Your task to perform on an android device: open the mobile data screen to see how much data has been used Image 0: 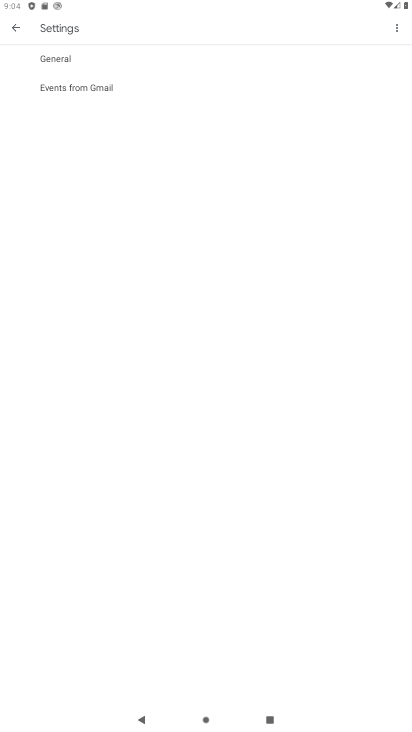
Step 0: press home button
Your task to perform on an android device: open the mobile data screen to see how much data has been used Image 1: 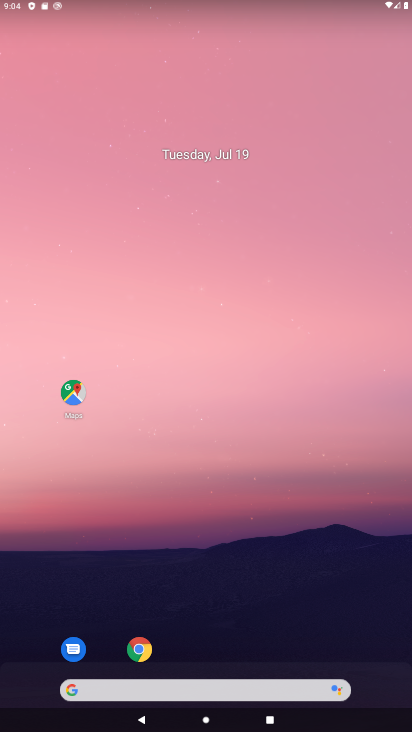
Step 1: drag from (264, 671) to (181, 91)
Your task to perform on an android device: open the mobile data screen to see how much data has been used Image 2: 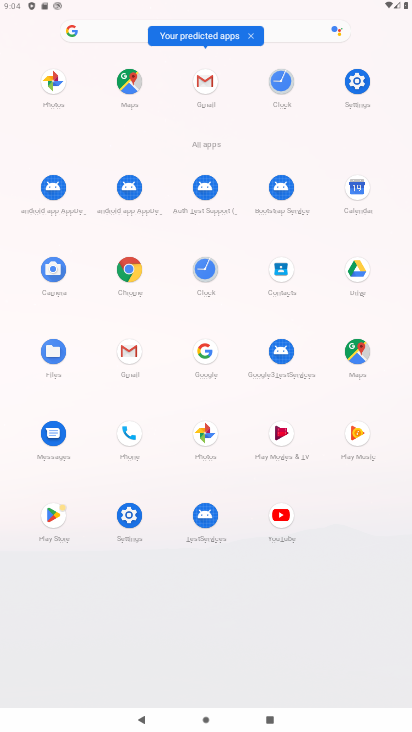
Step 2: click (367, 78)
Your task to perform on an android device: open the mobile data screen to see how much data has been used Image 3: 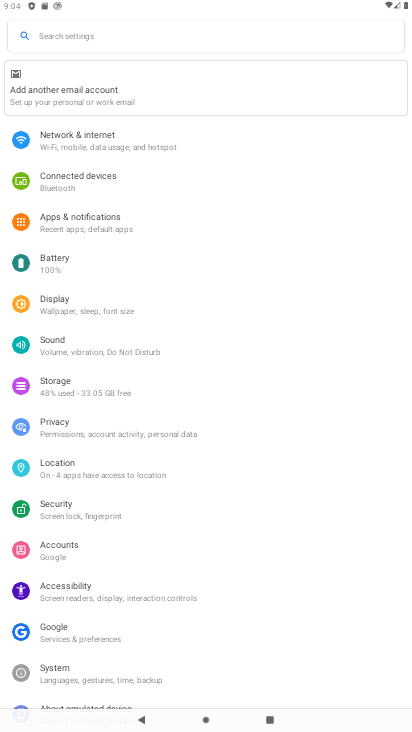
Step 3: press home button
Your task to perform on an android device: open the mobile data screen to see how much data has been used Image 4: 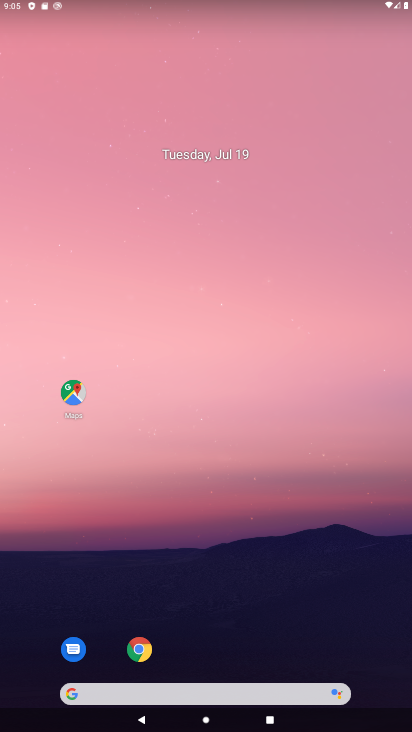
Step 4: drag from (128, 677) to (213, 78)
Your task to perform on an android device: open the mobile data screen to see how much data has been used Image 5: 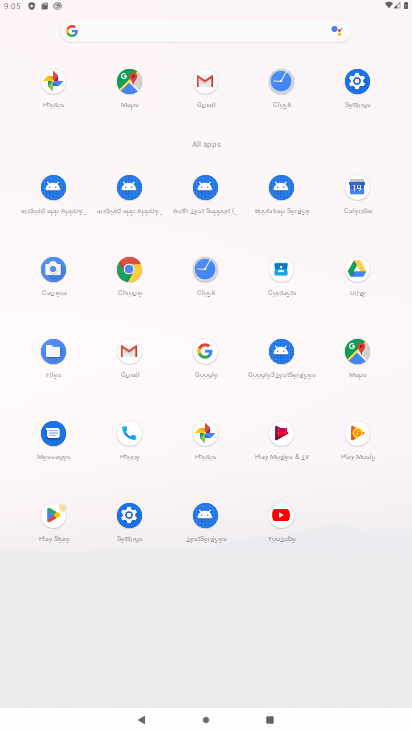
Step 5: click (365, 79)
Your task to perform on an android device: open the mobile data screen to see how much data has been used Image 6: 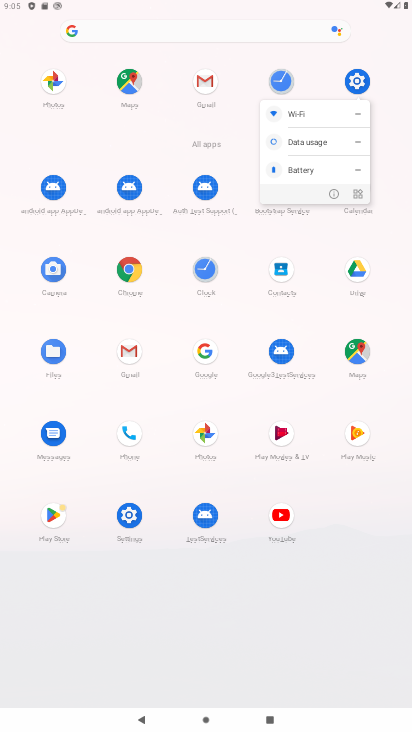
Step 6: click (369, 90)
Your task to perform on an android device: open the mobile data screen to see how much data has been used Image 7: 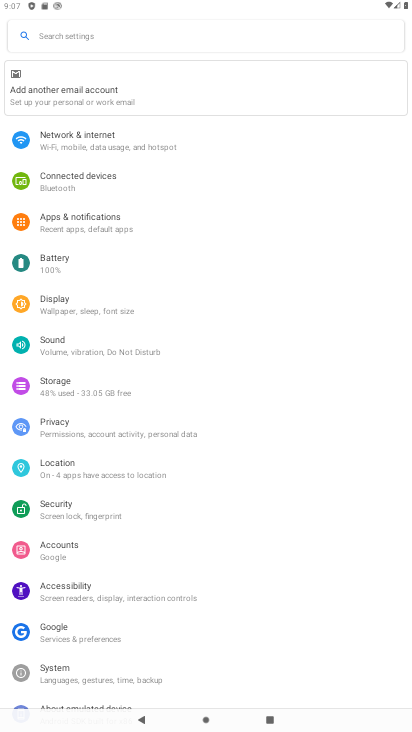
Step 7: click (89, 136)
Your task to perform on an android device: open the mobile data screen to see how much data has been used Image 8: 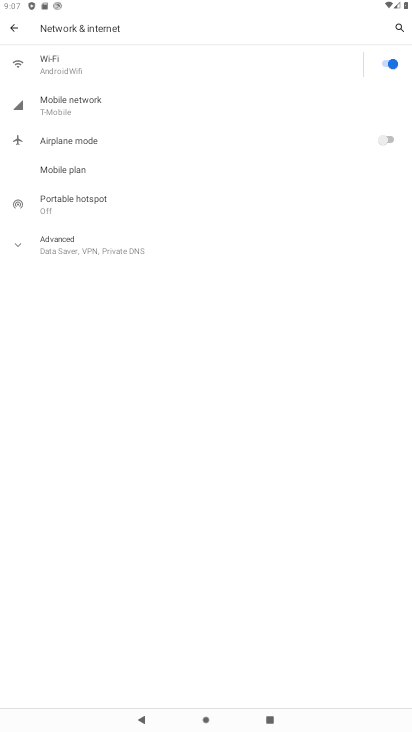
Step 8: click (104, 95)
Your task to perform on an android device: open the mobile data screen to see how much data has been used Image 9: 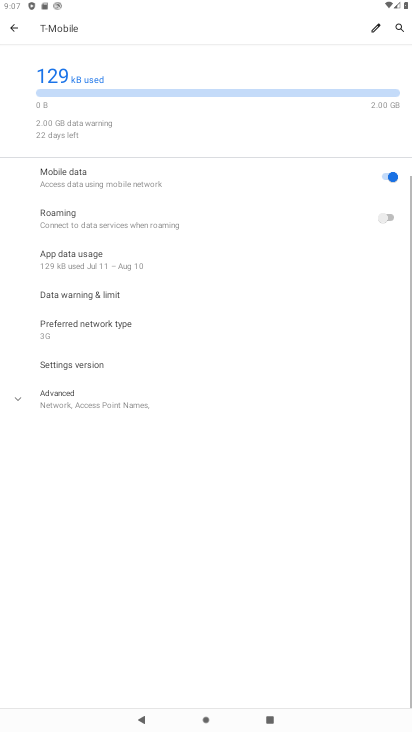
Step 9: task complete